Your task to perform on an android device: open device folders in google photos Image 0: 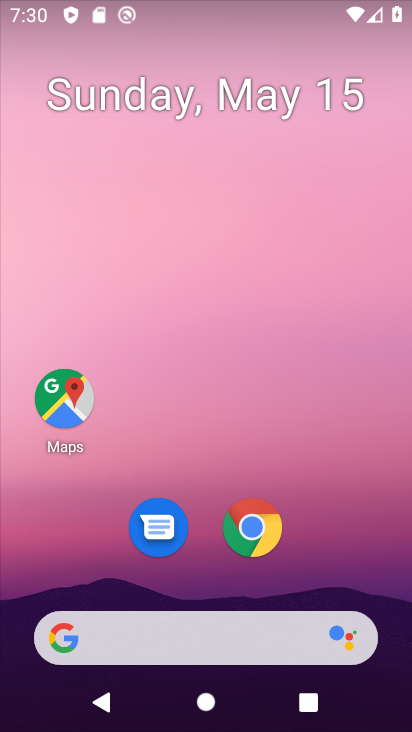
Step 0: drag from (176, 645) to (340, 120)
Your task to perform on an android device: open device folders in google photos Image 1: 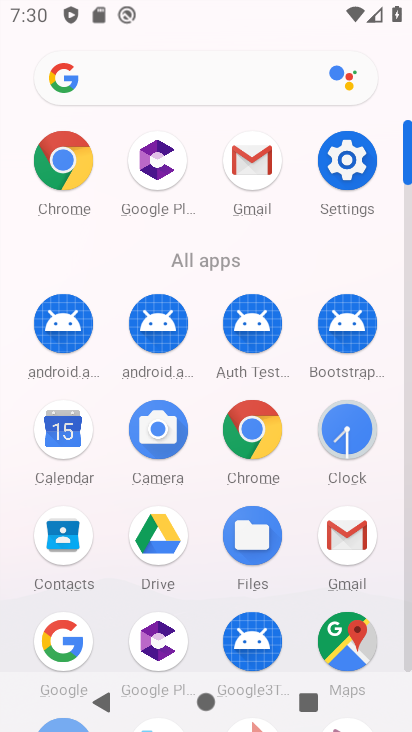
Step 1: drag from (206, 581) to (286, 224)
Your task to perform on an android device: open device folders in google photos Image 2: 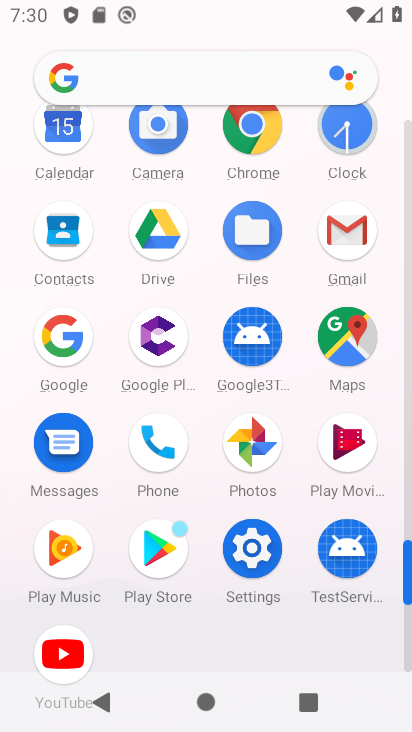
Step 2: click (257, 431)
Your task to perform on an android device: open device folders in google photos Image 3: 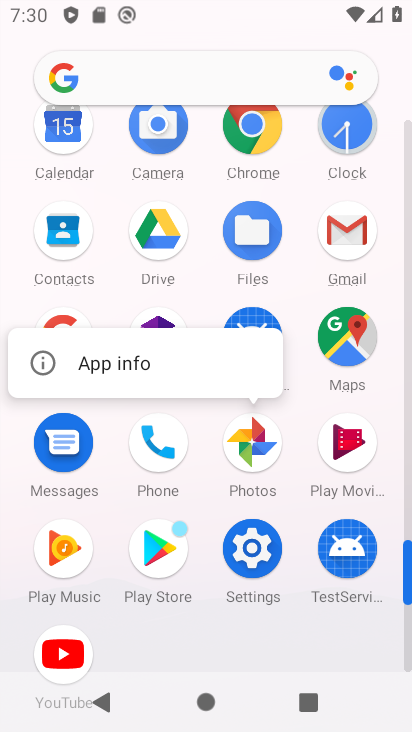
Step 3: click (252, 440)
Your task to perform on an android device: open device folders in google photos Image 4: 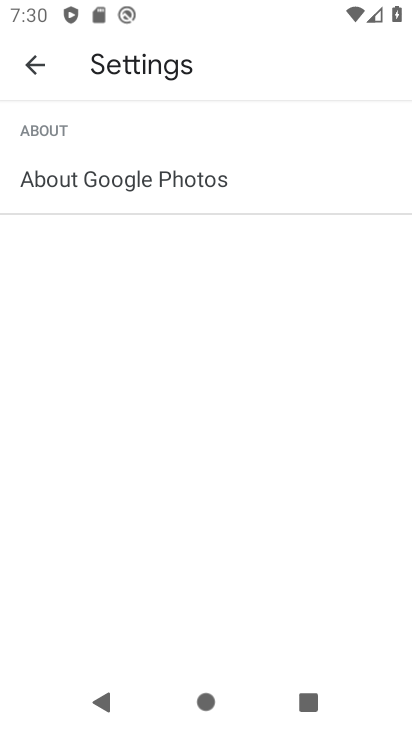
Step 4: click (37, 71)
Your task to perform on an android device: open device folders in google photos Image 5: 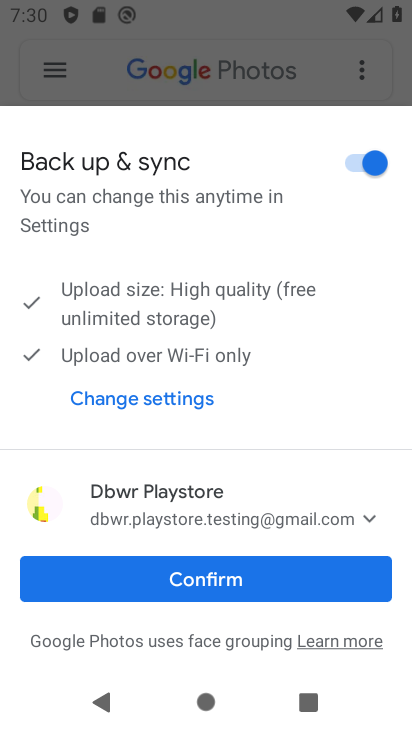
Step 5: click (187, 585)
Your task to perform on an android device: open device folders in google photos Image 6: 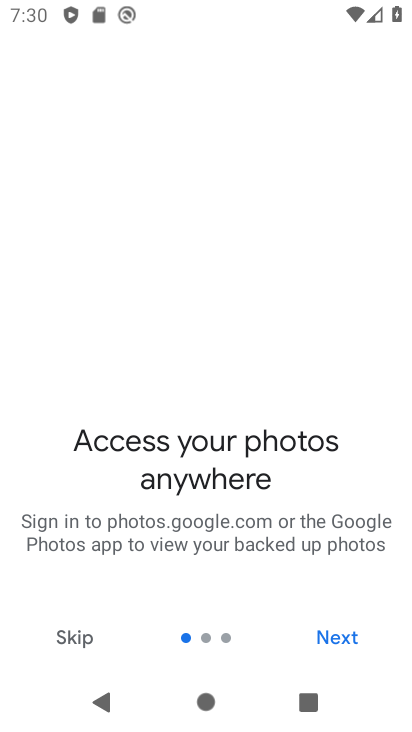
Step 6: click (332, 636)
Your task to perform on an android device: open device folders in google photos Image 7: 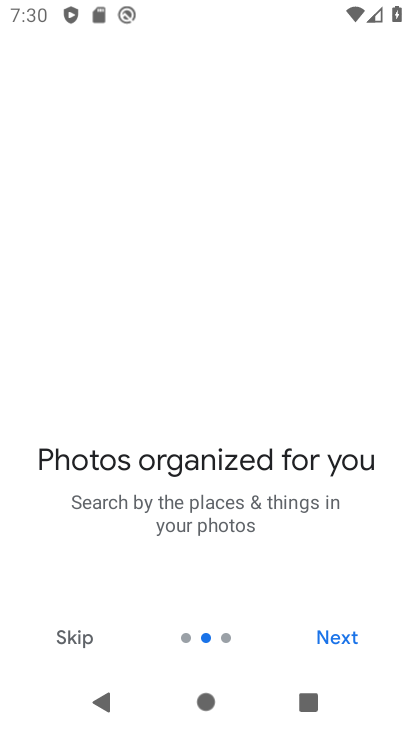
Step 7: click (332, 636)
Your task to perform on an android device: open device folders in google photos Image 8: 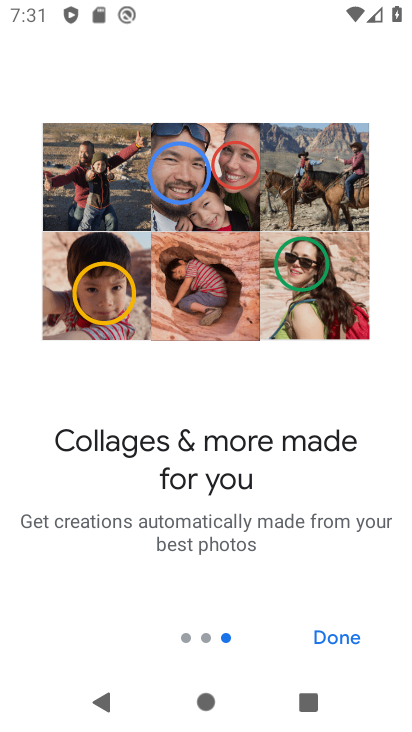
Step 8: click (332, 636)
Your task to perform on an android device: open device folders in google photos Image 9: 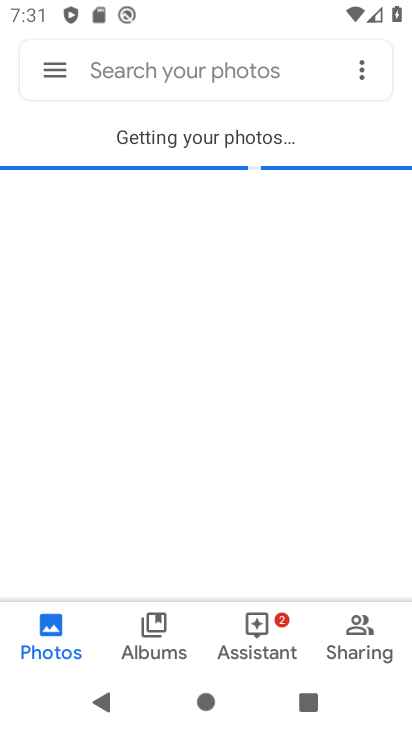
Step 9: click (62, 70)
Your task to perform on an android device: open device folders in google photos Image 10: 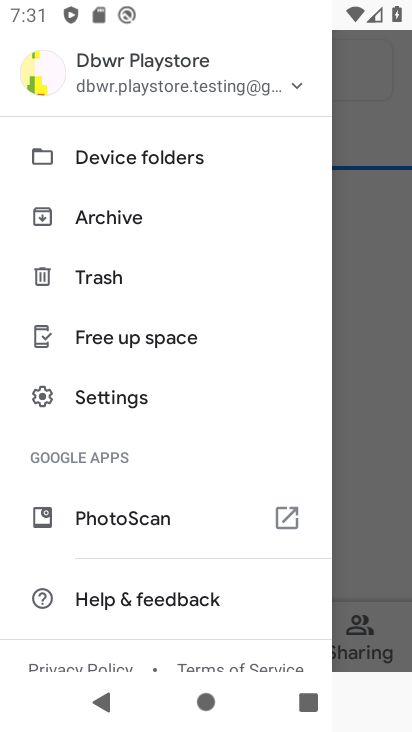
Step 10: click (118, 161)
Your task to perform on an android device: open device folders in google photos Image 11: 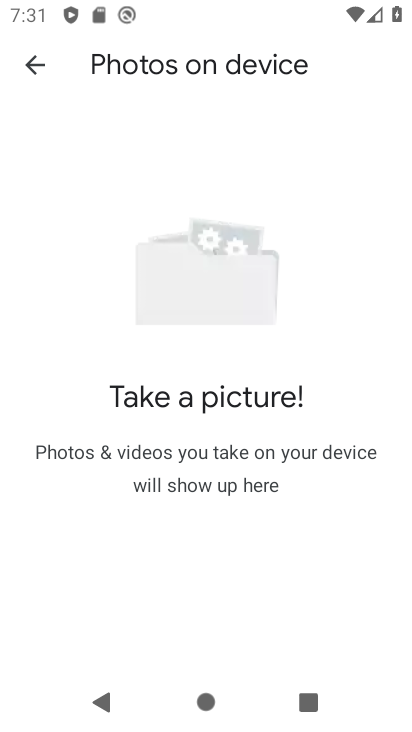
Step 11: task complete